Your task to perform on an android device: add a contact in the contacts app Image 0: 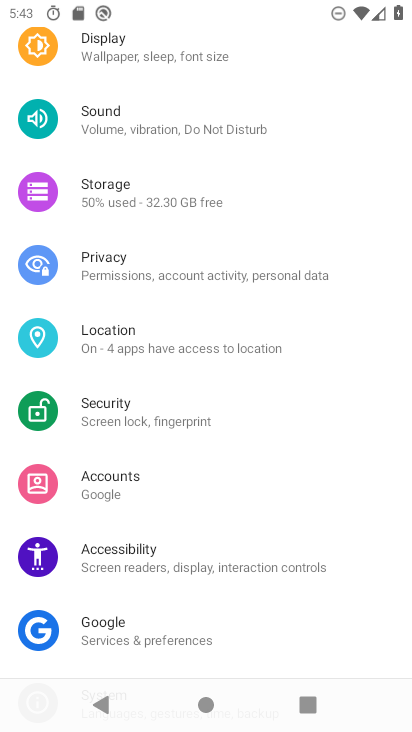
Step 0: press home button
Your task to perform on an android device: add a contact in the contacts app Image 1: 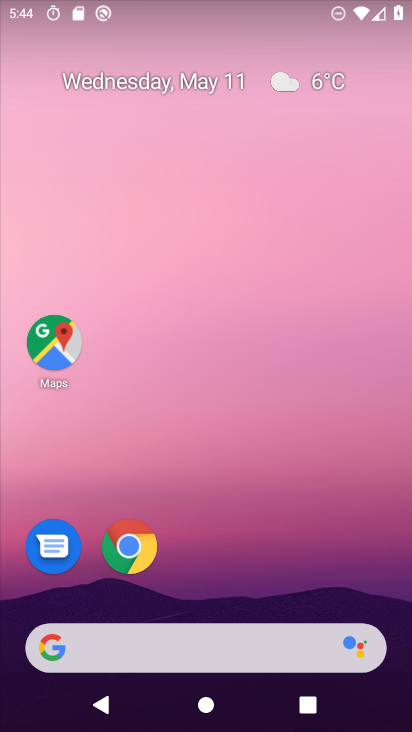
Step 1: drag from (200, 607) to (222, 288)
Your task to perform on an android device: add a contact in the contacts app Image 2: 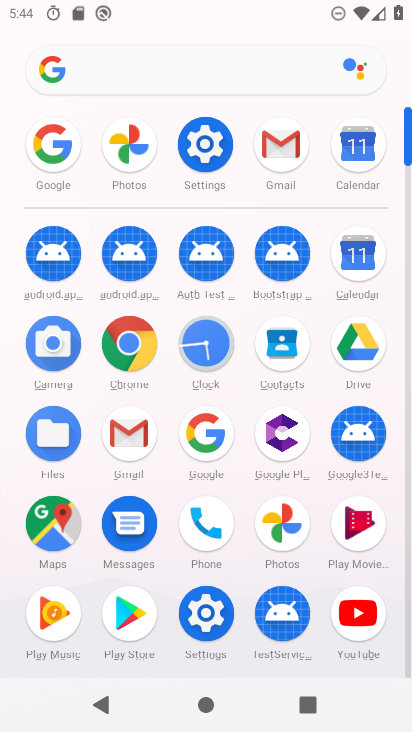
Step 2: click (277, 348)
Your task to perform on an android device: add a contact in the contacts app Image 3: 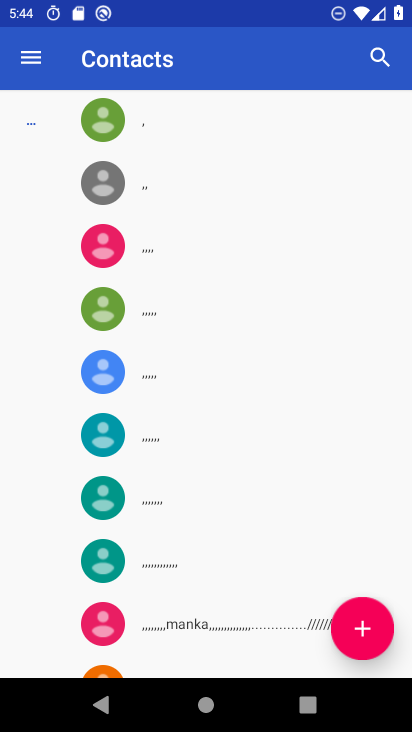
Step 3: click (365, 639)
Your task to perform on an android device: add a contact in the contacts app Image 4: 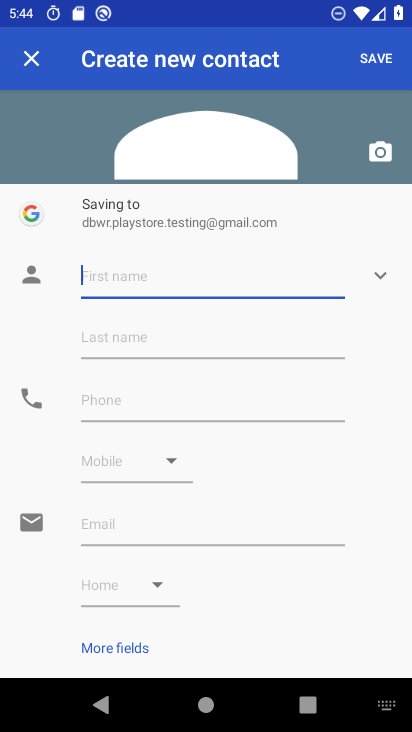
Step 4: click (133, 276)
Your task to perform on an android device: add a contact in the contacts app Image 5: 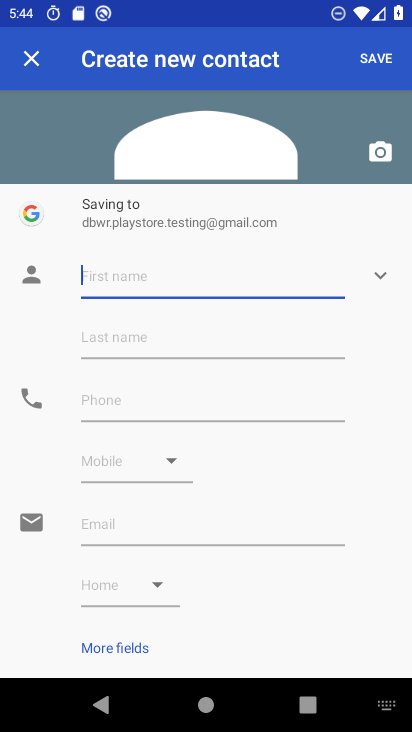
Step 5: type "rekha"
Your task to perform on an android device: add a contact in the contacts app Image 6: 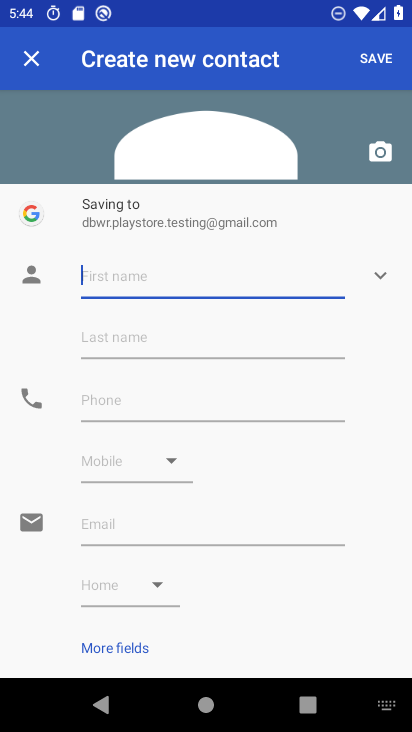
Step 6: click (152, 340)
Your task to perform on an android device: add a contact in the contacts app Image 7: 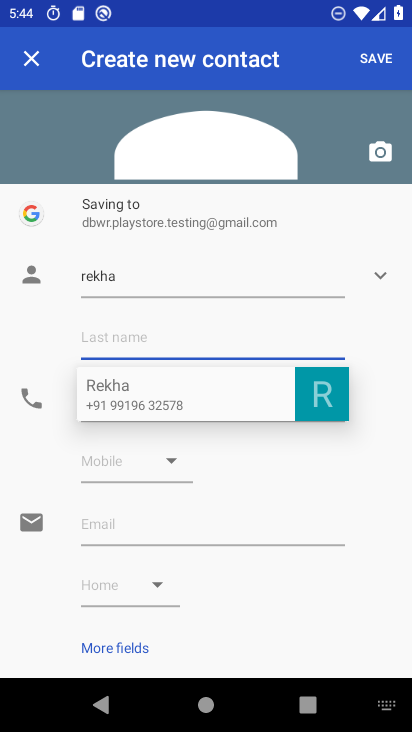
Step 7: type "sutra"
Your task to perform on an android device: add a contact in the contacts app Image 8: 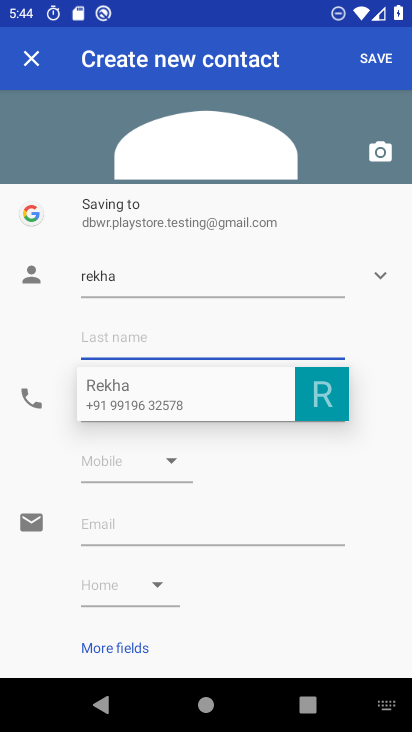
Step 8: click (48, 429)
Your task to perform on an android device: add a contact in the contacts app Image 9: 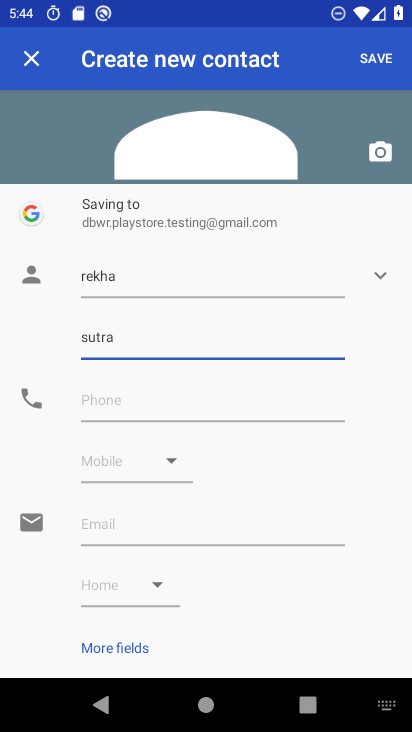
Step 9: click (124, 405)
Your task to perform on an android device: add a contact in the contacts app Image 10: 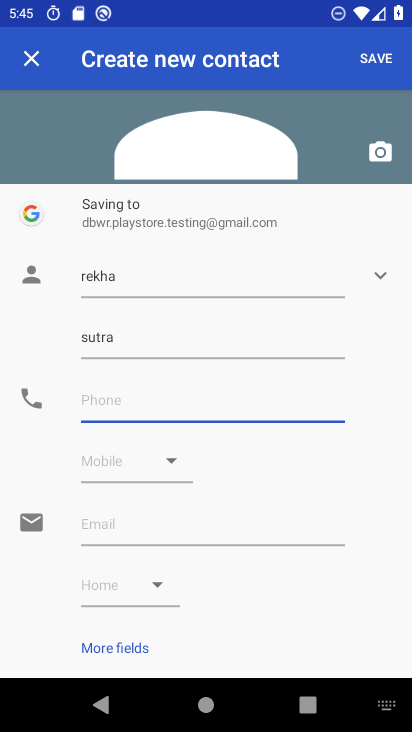
Step 10: type "7678767876"
Your task to perform on an android device: add a contact in the contacts app Image 11: 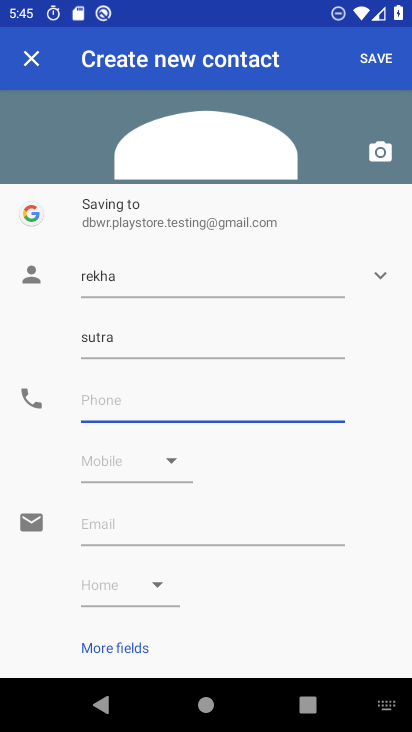
Step 11: click (83, 464)
Your task to perform on an android device: add a contact in the contacts app Image 12: 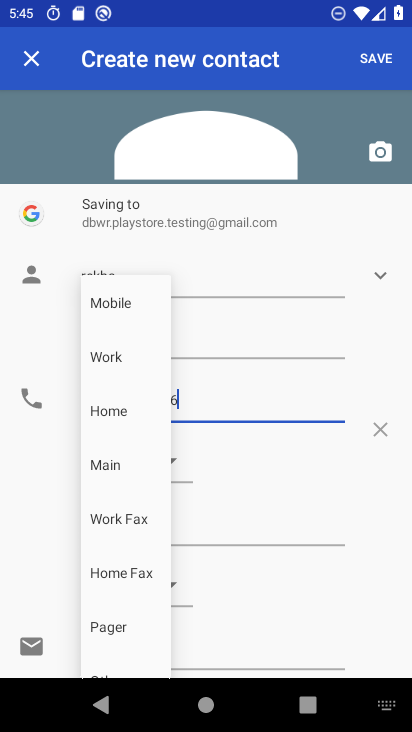
Step 12: click (108, 303)
Your task to perform on an android device: add a contact in the contacts app Image 13: 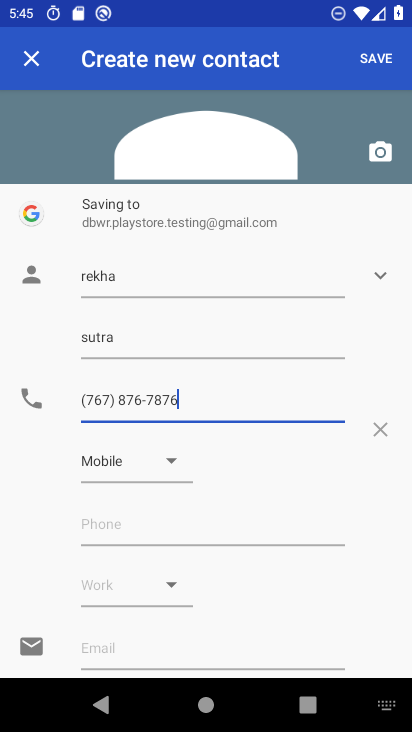
Step 13: task complete